Your task to perform on an android device: install app "Airtel Thanks" Image 0: 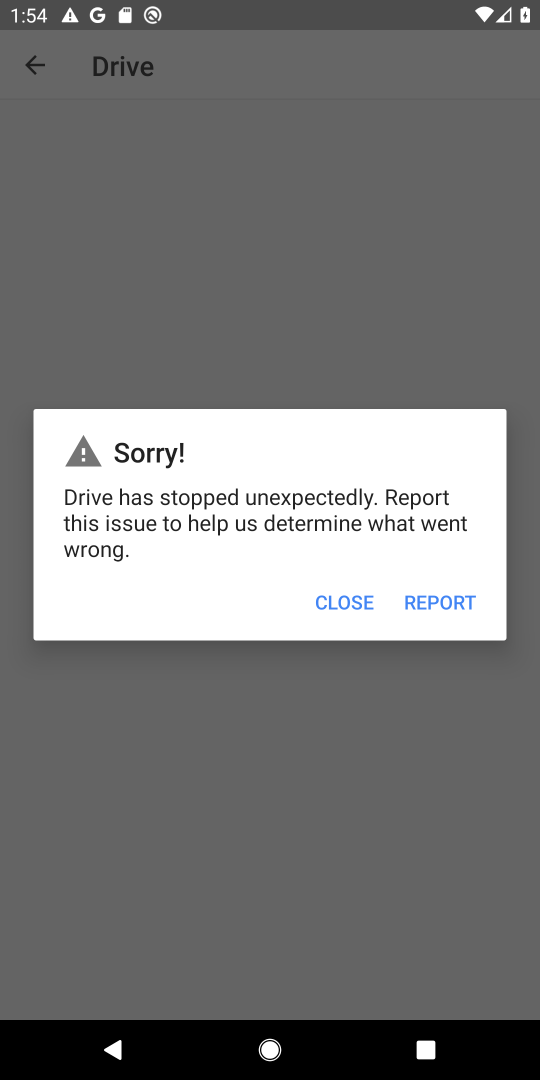
Step 0: press home button
Your task to perform on an android device: install app "Airtel Thanks" Image 1: 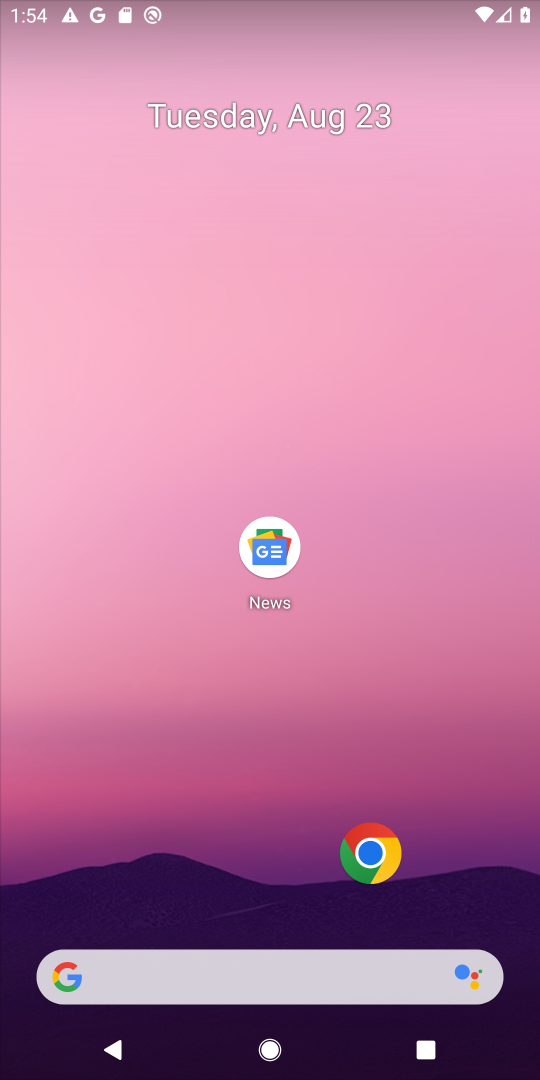
Step 1: drag from (511, 930) to (398, 190)
Your task to perform on an android device: install app "Airtel Thanks" Image 2: 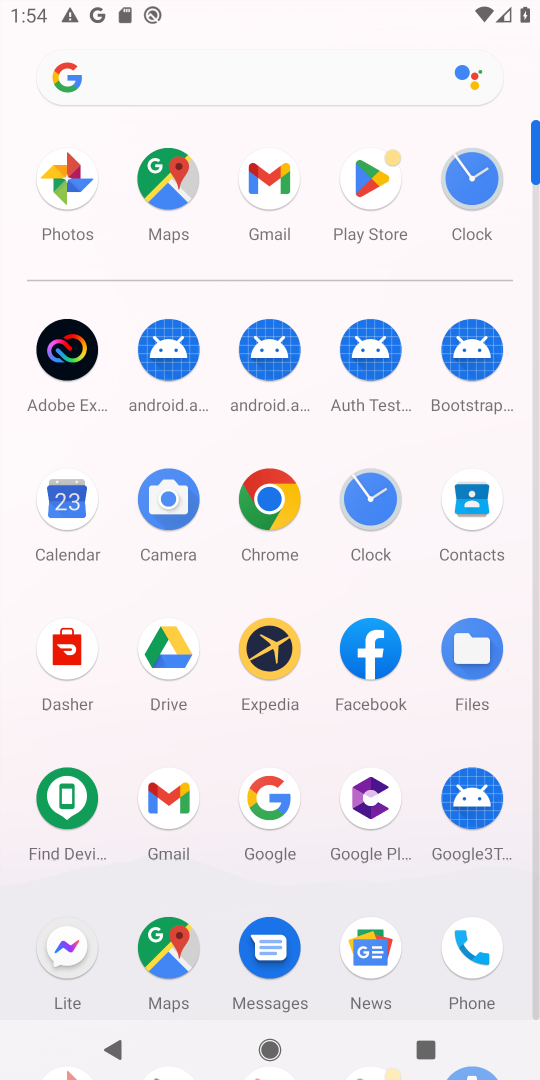
Step 2: drag from (387, 696) to (361, 436)
Your task to perform on an android device: install app "Airtel Thanks" Image 3: 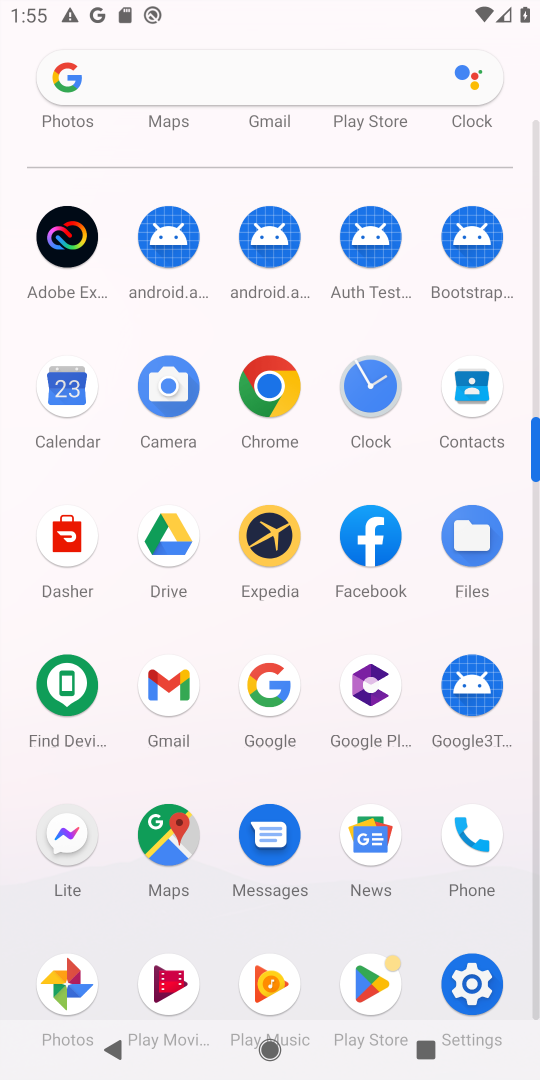
Step 3: click (367, 982)
Your task to perform on an android device: install app "Airtel Thanks" Image 4: 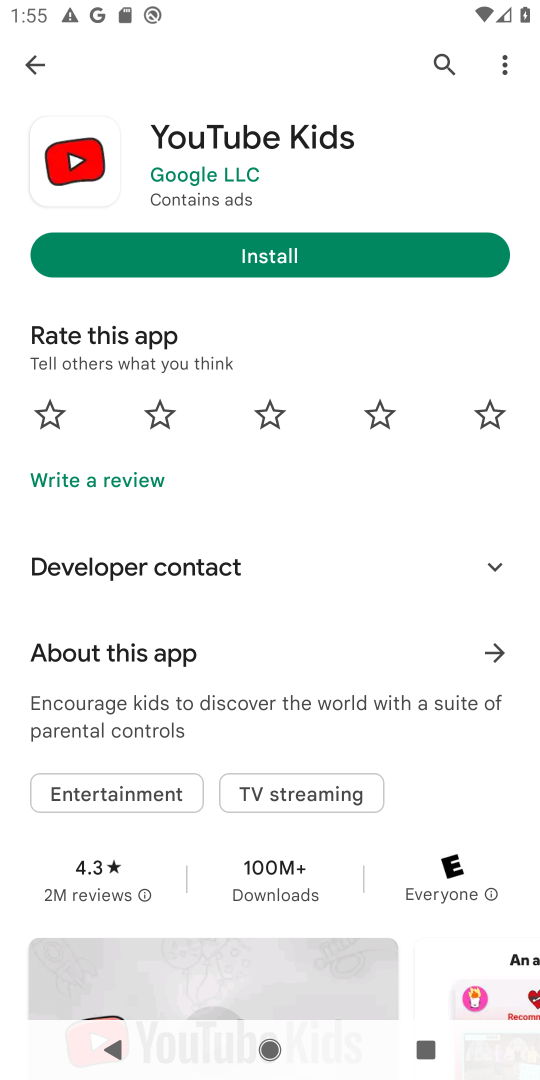
Step 4: click (437, 64)
Your task to perform on an android device: install app "Airtel Thanks" Image 5: 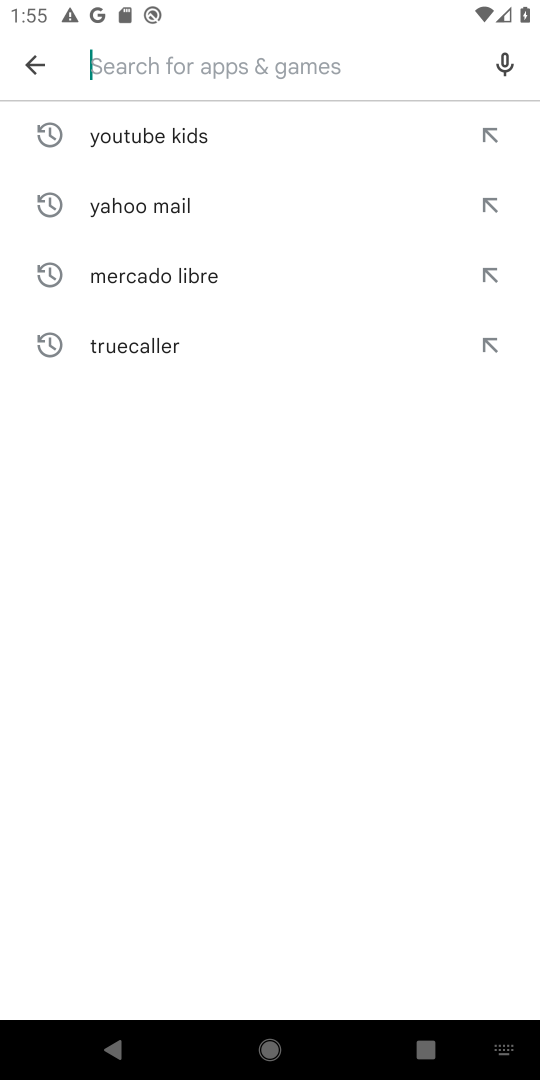
Step 5: type "Airtel Thanks"
Your task to perform on an android device: install app "Airtel Thanks" Image 6: 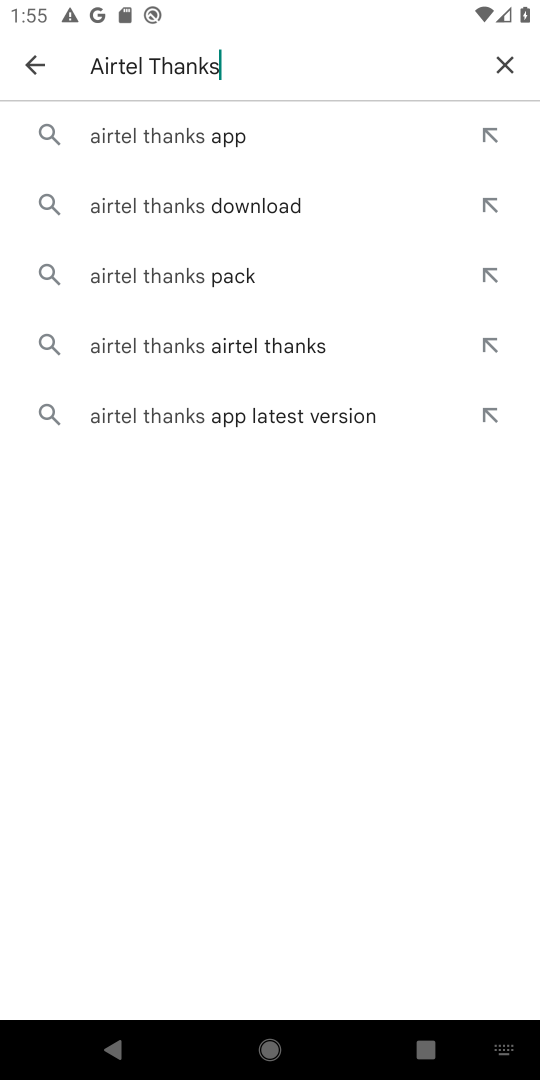
Step 6: click (133, 128)
Your task to perform on an android device: install app "Airtel Thanks" Image 7: 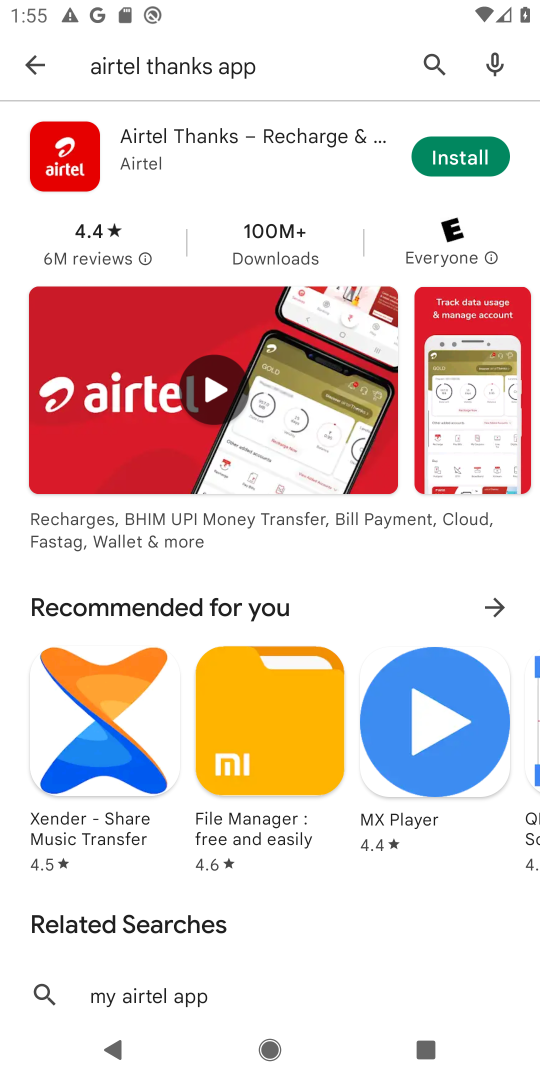
Step 7: click (462, 155)
Your task to perform on an android device: install app "Airtel Thanks" Image 8: 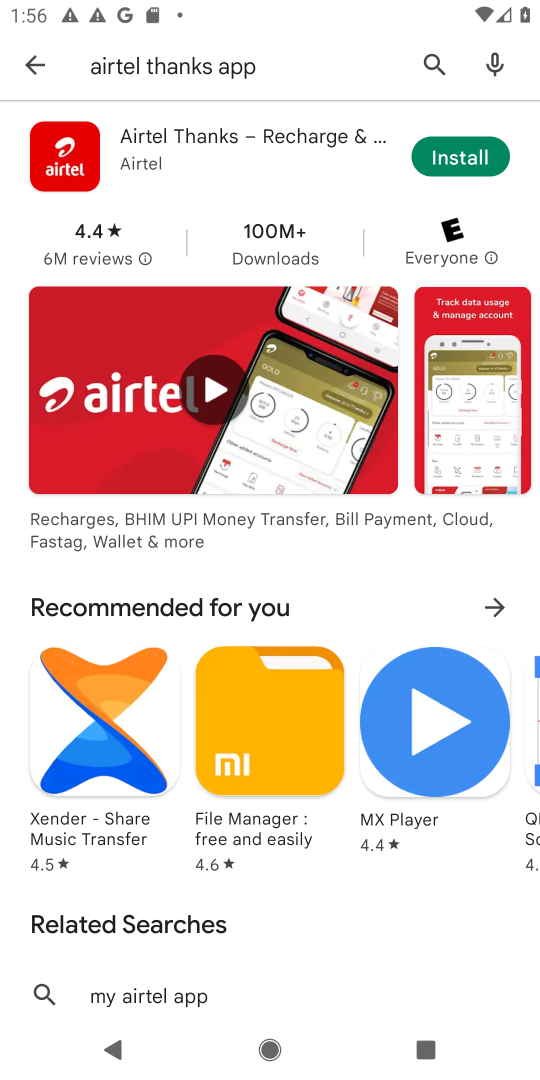
Step 8: click (461, 162)
Your task to perform on an android device: install app "Airtel Thanks" Image 9: 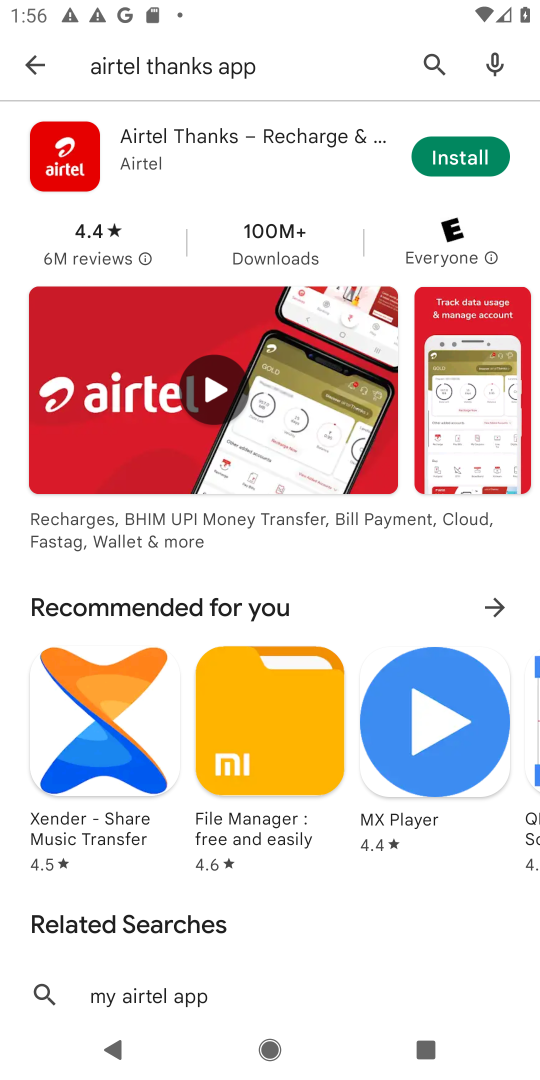
Step 9: click (461, 156)
Your task to perform on an android device: install app "Airtel Thanks" Image 10: 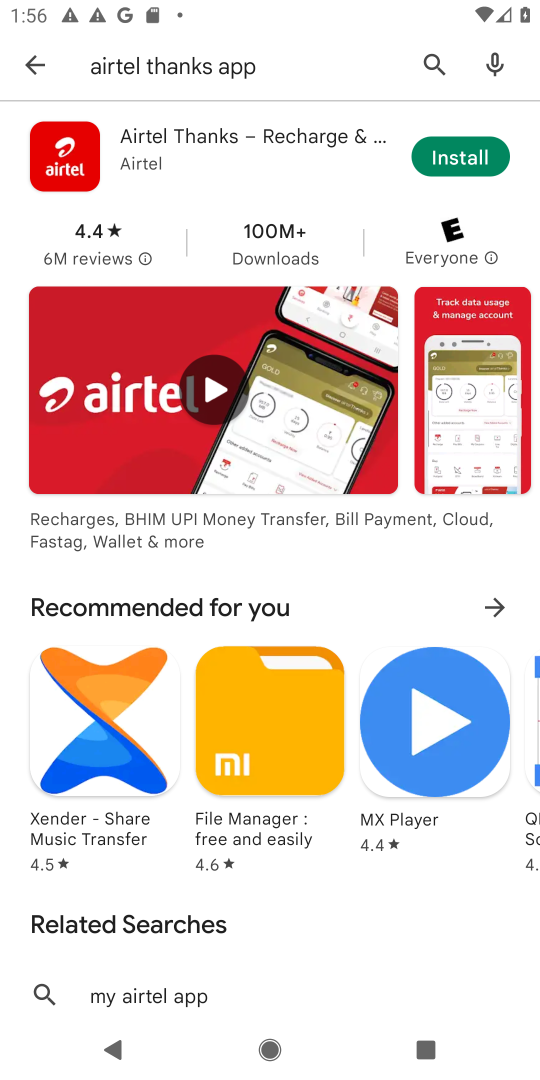
Step 10: task complete